Your task to perform on an android device: See recent photos Image 0: 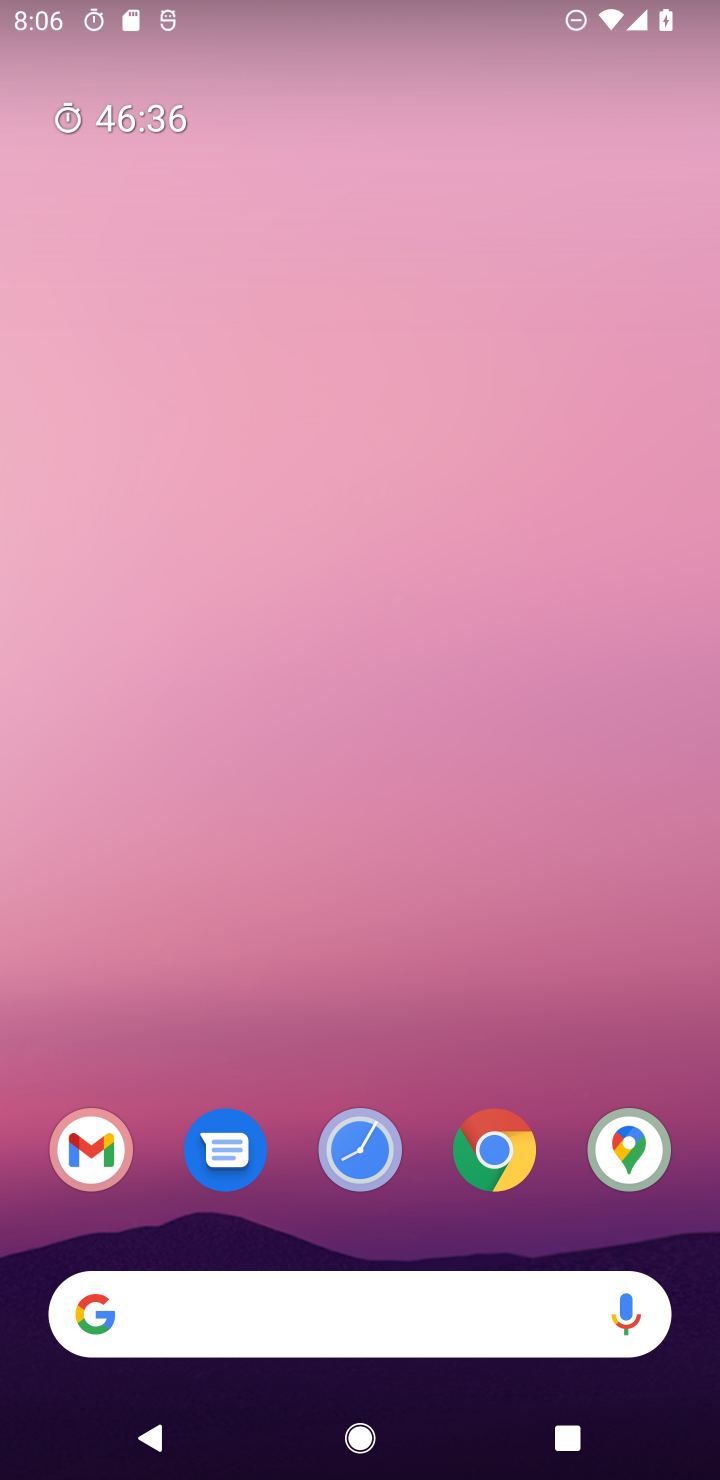
Step 0: drag from (381, 1201) to (66, 57)
Your task to perform on an android device: See recent photos Image 1: 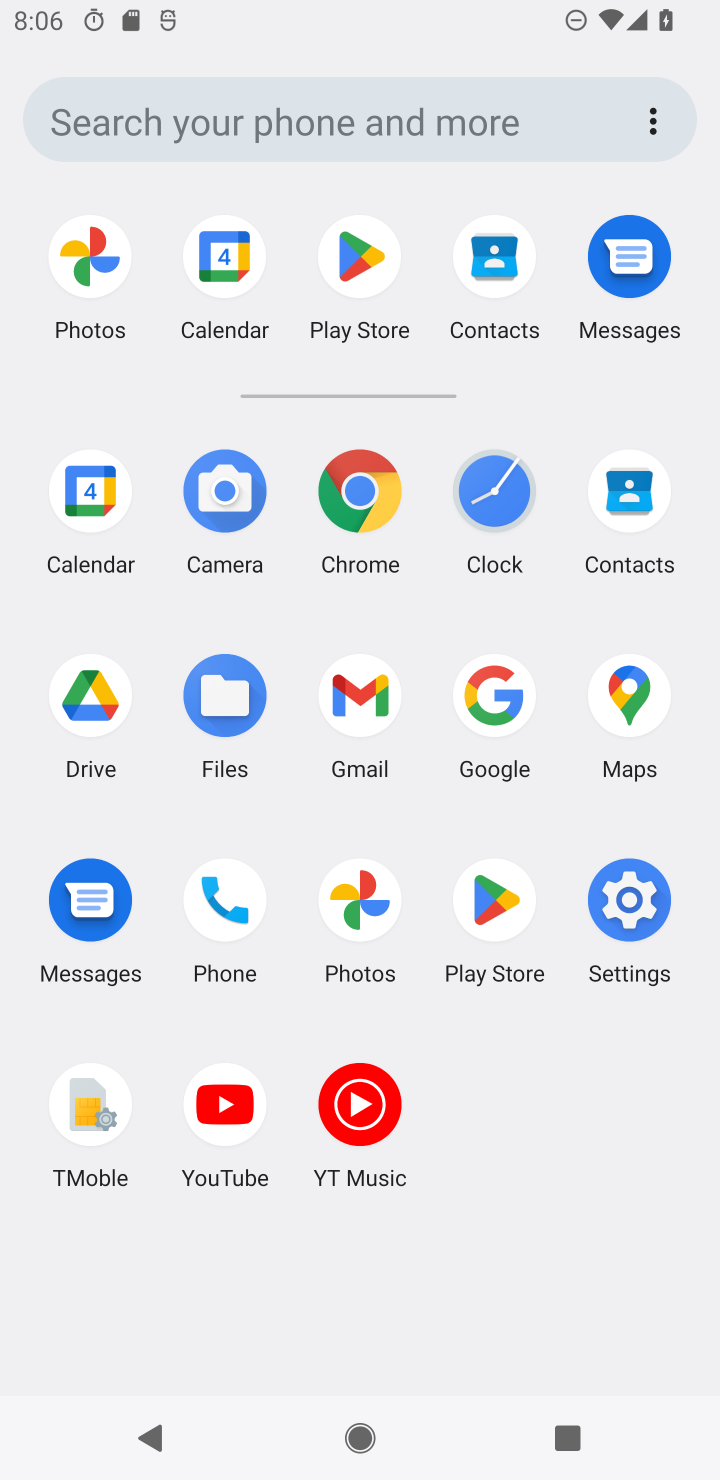
Step 1: click (364, 922)
Your task to perform on an android device: See recent photos Image 2: 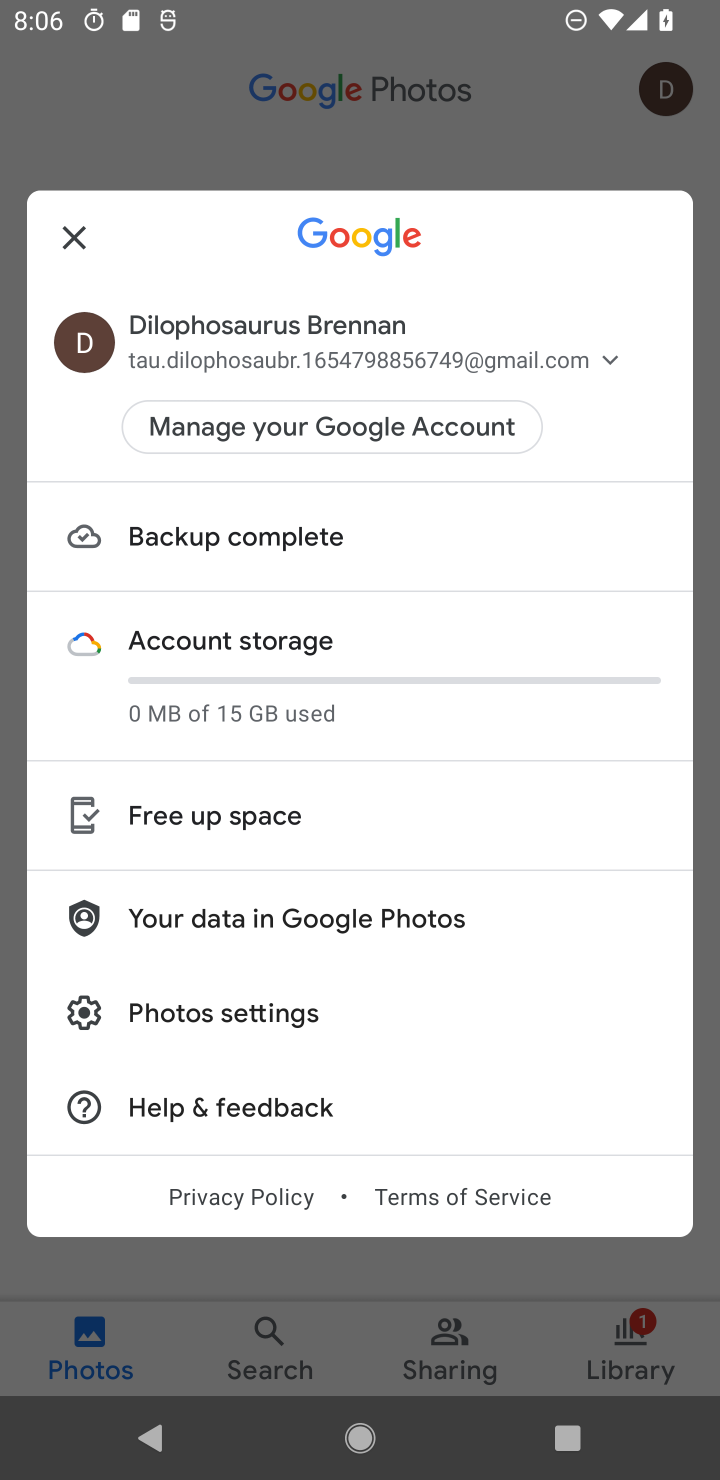
Step 2: click (283, 155)
Your task to perform on an android device: See recent photos Image 3: 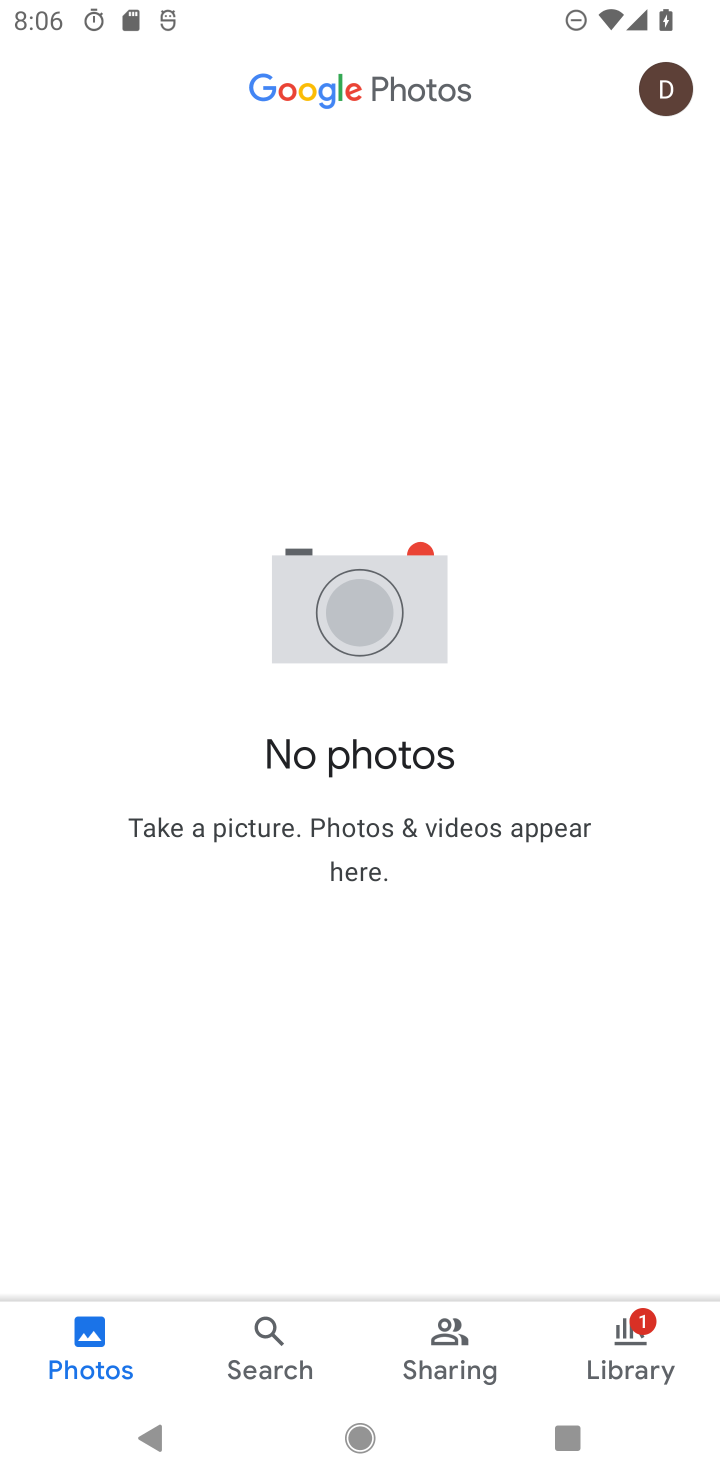
Step 3: task complete